Your task to perform on an android device: Open location settings Image 0: 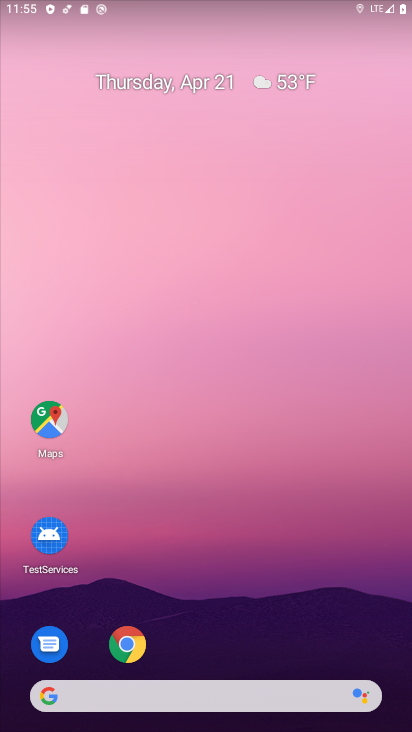
Step 0: drag from (247, 474) to (248, 108)
Your task to perform on an android device: Open location settings Image 1: 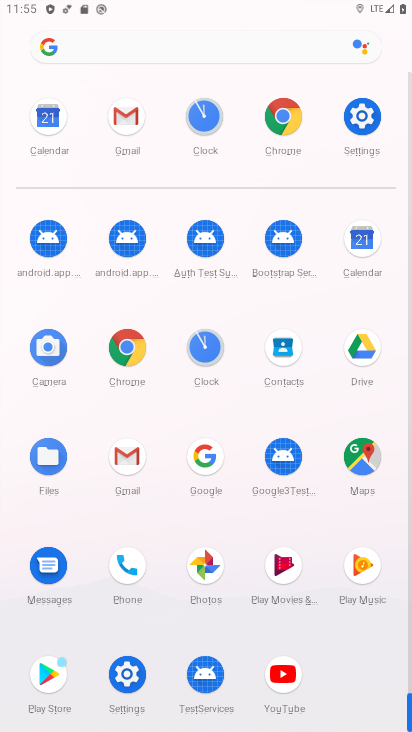
Step 1: click (370, 121)
Your task to perform on an android device: Open location settings Image 2: 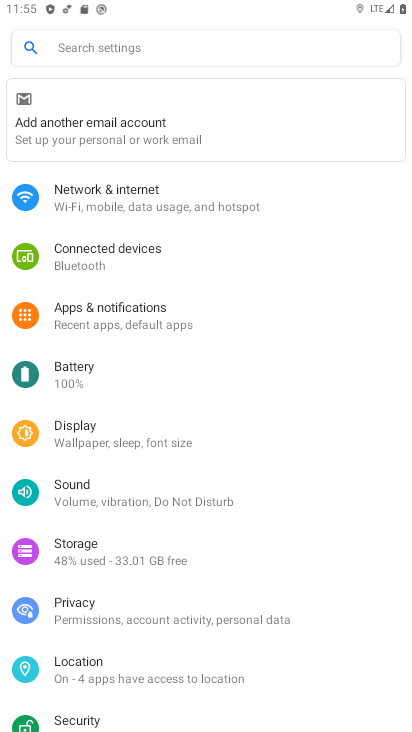
Step 2: drag from (293, 661) to (317, 222)
Your task to perform on an android device: Open location settings Image 3: 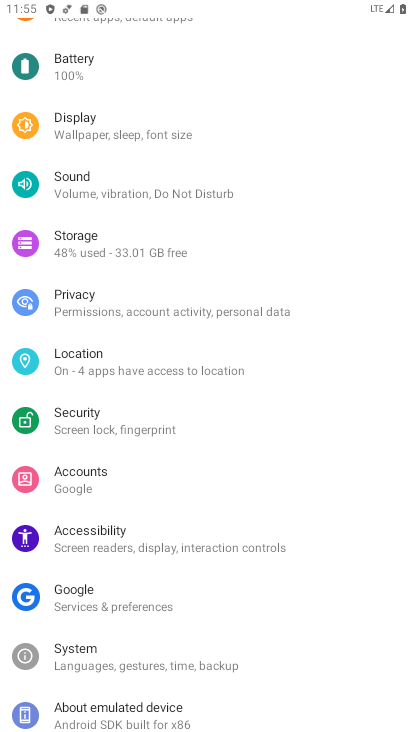
Step 3: click (151, 367)
Your task to perform on an android device: Open location settings Image 4: 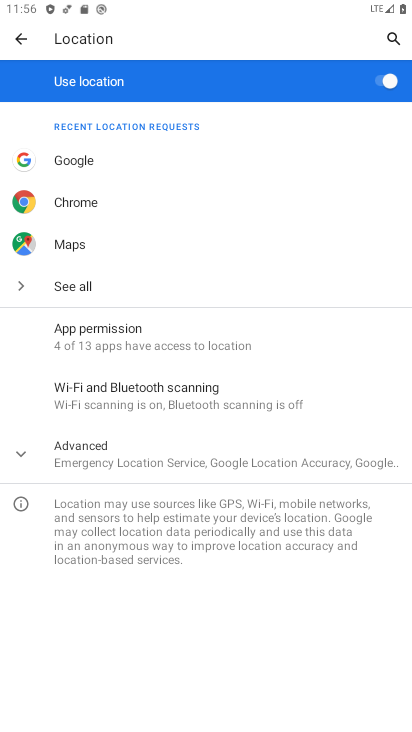
Step 4: task complete